Your task to perform on an android device: Open ESPN.com Image 0: 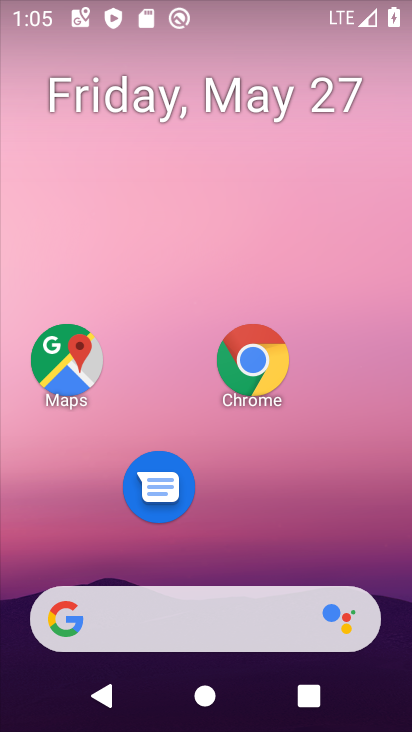
Step 0: drag from (289, 505) to (280, 67)
Your task to perform on an android device: Open ESPN.com Image 1: 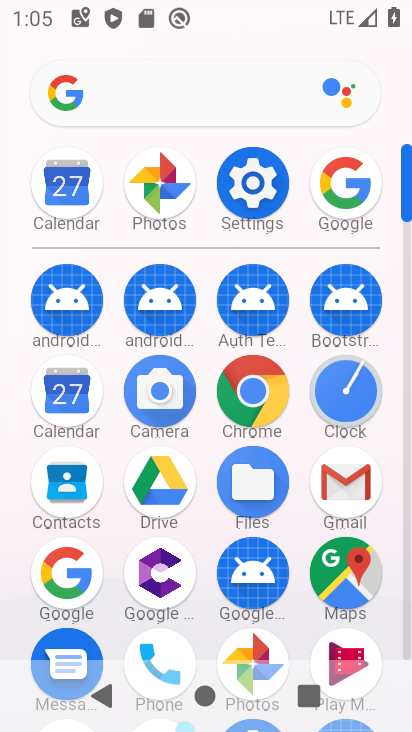
Step 1: click (345, 176)
Your task to perform on an android device: Open ESPN.com Image 2: 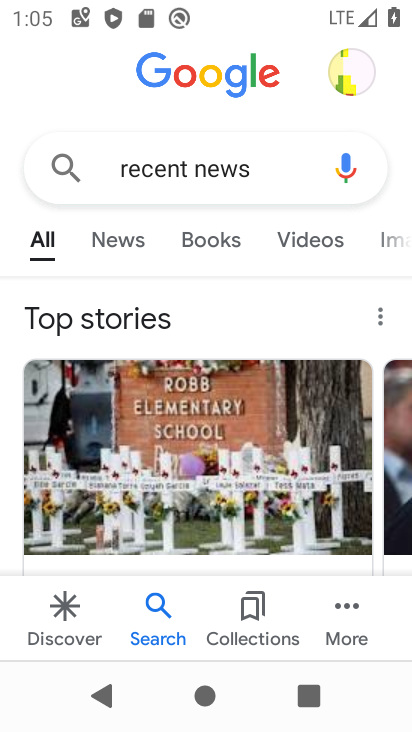
Step 2: click (263, 174)
Your task to perform on an android device: Open ESPN.com Image 3: 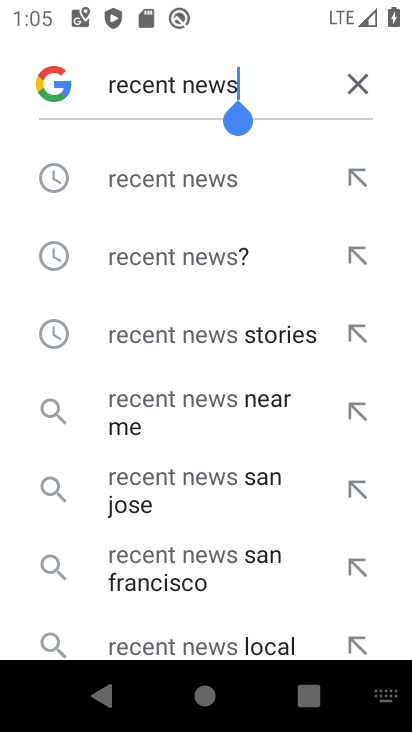
Step 3: click (352, 77)
Your task to perform on an android device: Open ESPN.com Image 4: 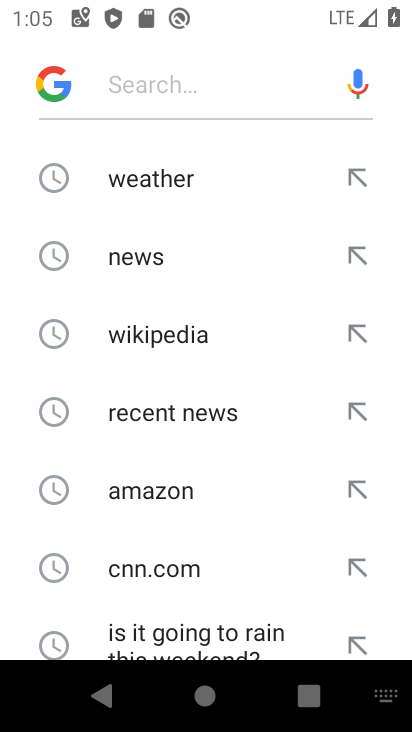
Step 4: drag from (188, 549) to (217, 143)
Your task to perform on an android device: Open ESPN.com Image 5: 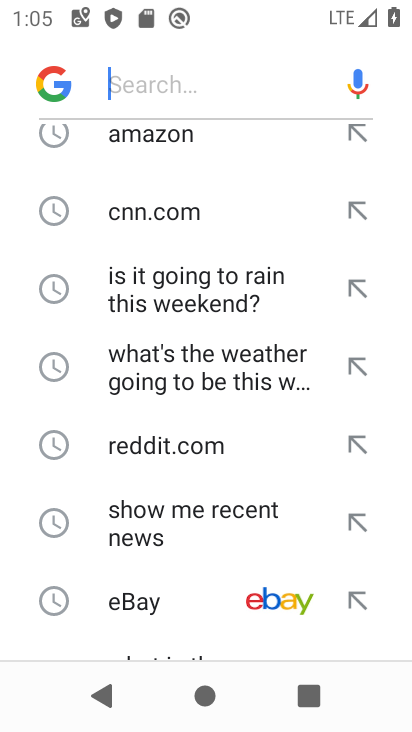
Step 5: drag from (156, 570) to (204, 182)
Your task to perform on an android device: Open ESPN.com Image 6: 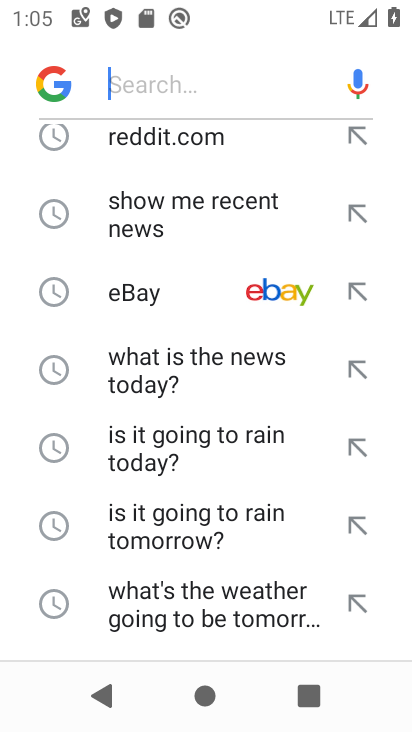
Step 6: drag from (224, 530) to (219, 178)
Your task to perform on an android device: Open ESPN.com Image 7: 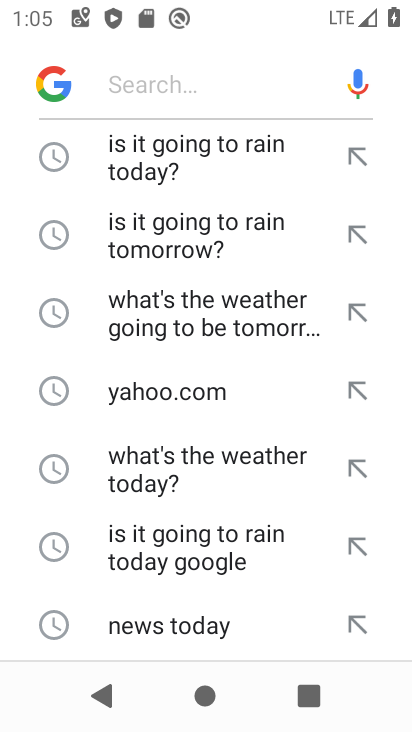
Step 7: drag from (213, 587) to (212, 201)
Your task to perform on an android device: Open ESPN.com Image 8: 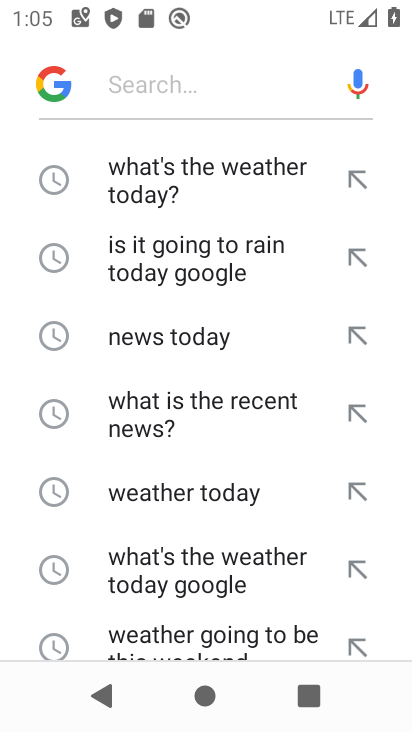
Step 8: drag from (228, 520) to (236, 5)
Your task to perform on an android device: Open ESPN.com Image 9: 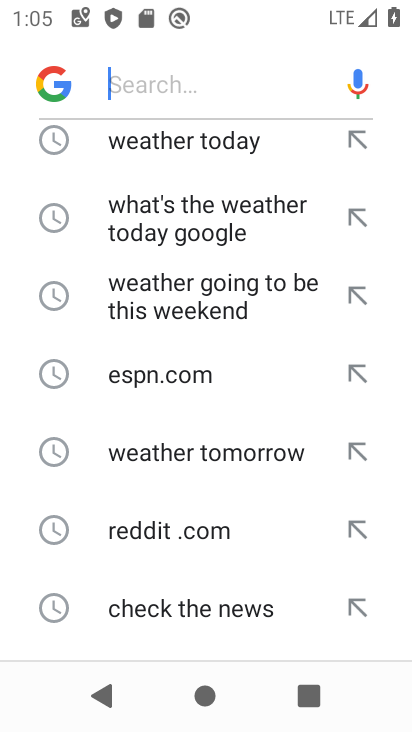
Step 9: click (142, 372)
Your task to perform on an android device: Open ESPN.com Image 10: 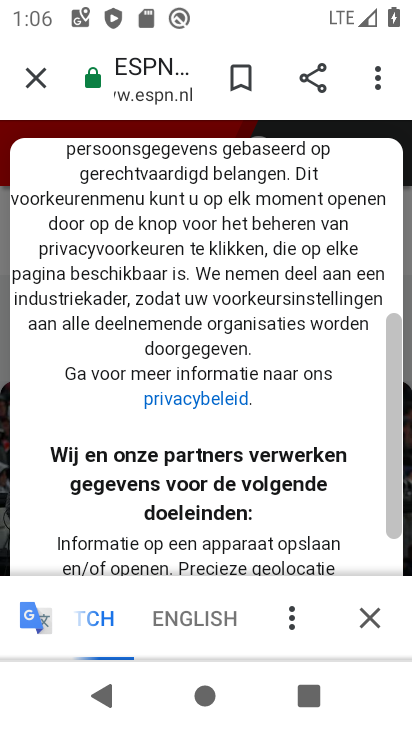
Step 10: task complete